Your task to perform on an android device: find photos in the google photos app Image 0: 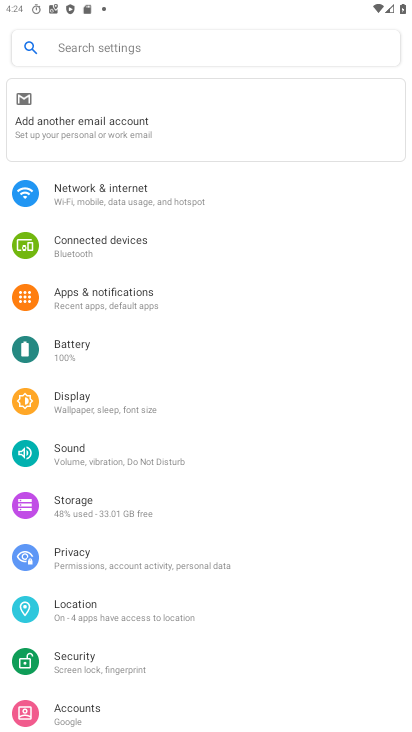
Step 0: press home button
Your task to perform on an android device: find photos in the google photos app Image 1: 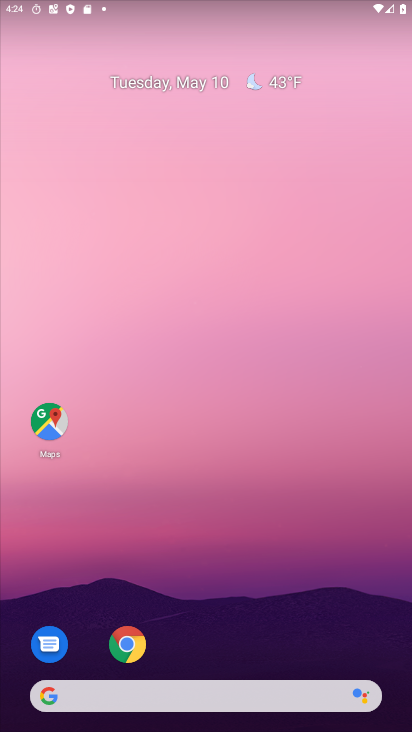
Step 1: drag from (223, 673) to (223, 377)
Your task to perform on an android device: find photos in the google photos app Image 2: 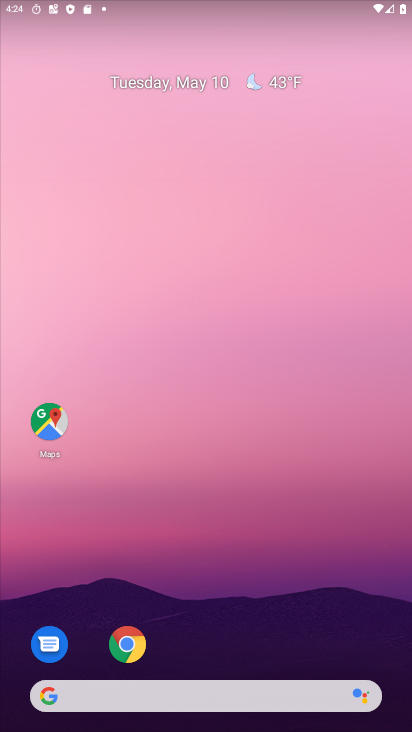
Step 2: drag from (205, 672) to (202, 349)
Your task to perform on an android device: find photos in the google photos app Image 3: 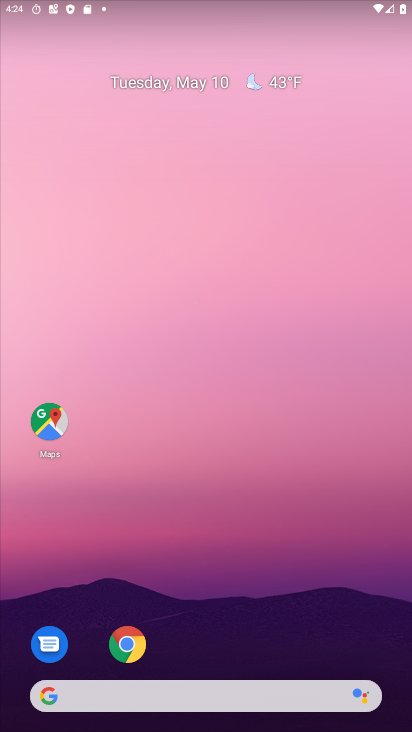
Step 3: drag from (222, 680) to (222, 168)
Your task to perform on an android device: find photos in the google photos app Image 4: 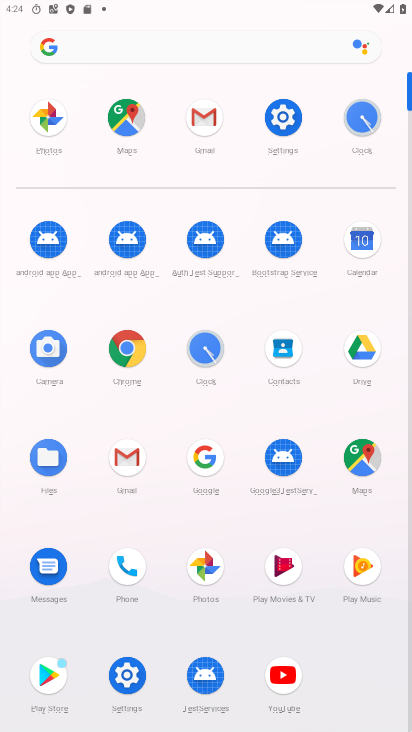
Step 4: click (208, 567)
Your task to perform on an android device: find photos in the google photos app Image 5: 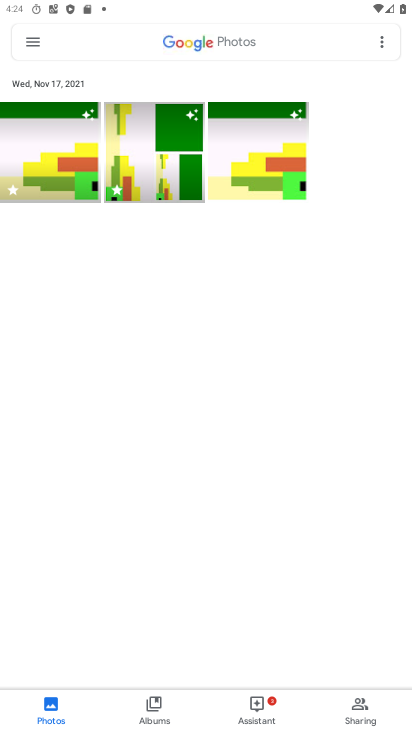
Step 5: click (215, 44)
Your task to perform on an android device: find photos in the google photos app Image 6: 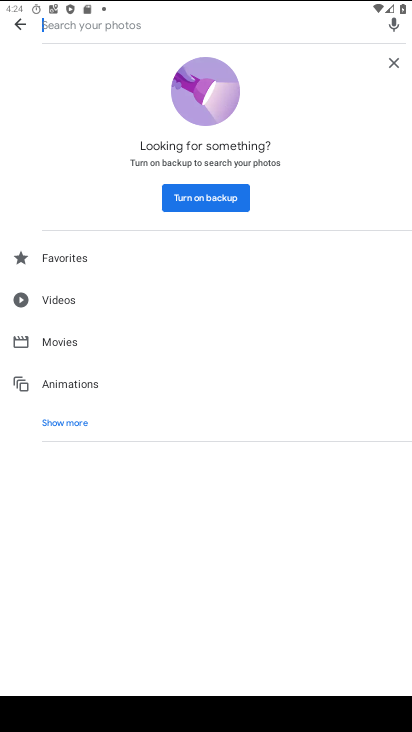
Step 6: click (56, 258)
Your task to perform on an android device: find photos in the google photos app Image 7: 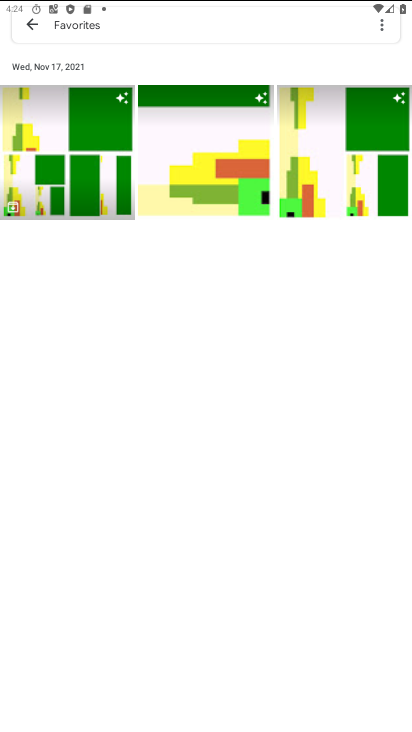
Step 7: click (52, 172)
Your task to perform on an android device: find photos in the google photos app Image 8: 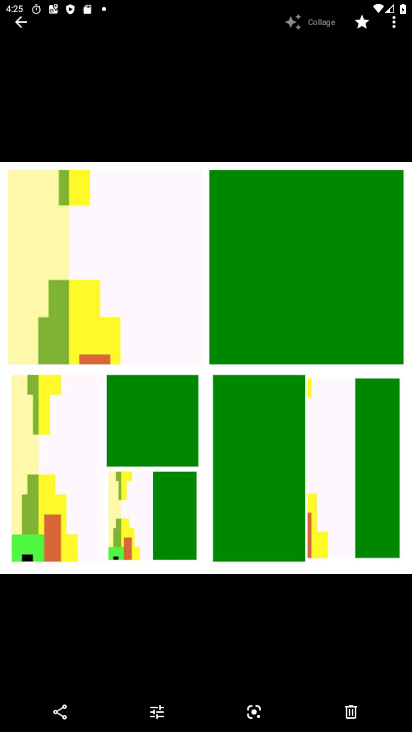
Step 8: task complete